Your task to perform on an android device: turn pop-ups on in chrome Image 0: 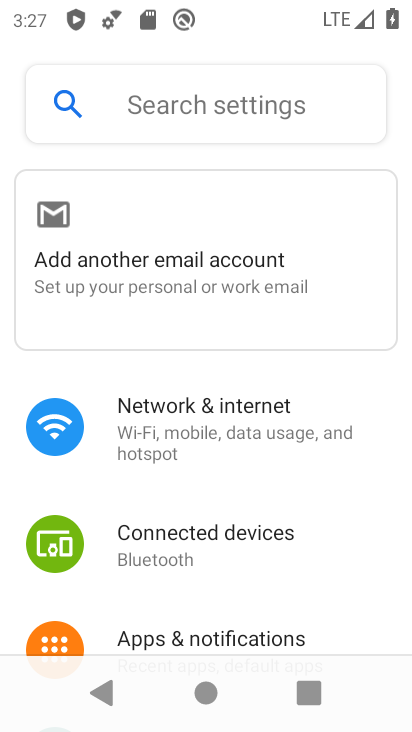
Step 0: press back button
Your task to perform on an android device: turn pop-ups on in chrome Image 1: 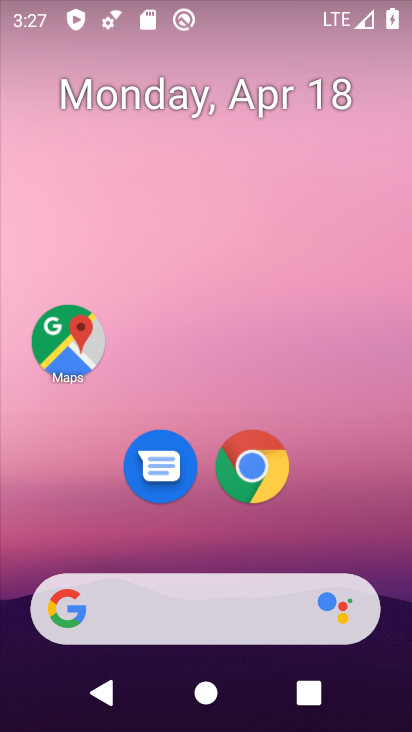
Step 1: click (276, 476)
Your task to perform on an android device: turn pop-ups on in chrome Image 2: 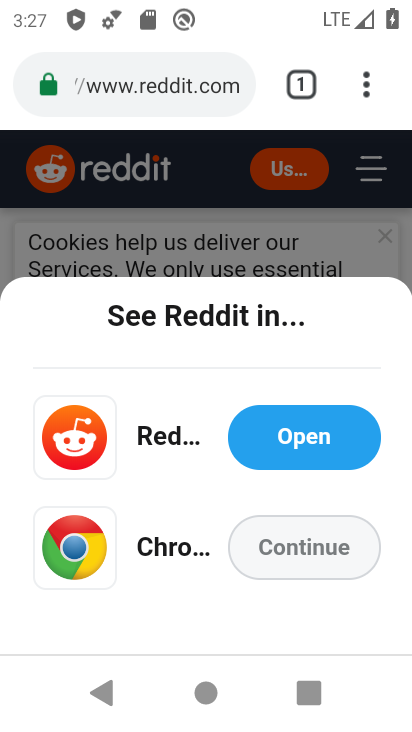
Step 2: press back button
Your task to perform on an android device: turn pop-ups on in chrome Image 3: 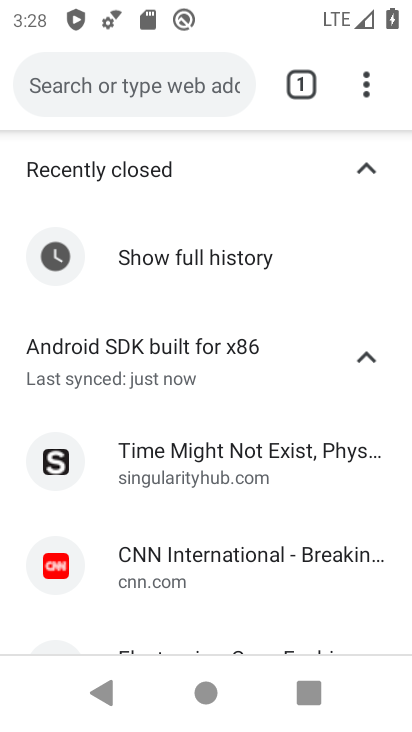
Step 3: click (369, 94)
Your task to perform on an android device: turn pop-ups on in chrome Image 4: 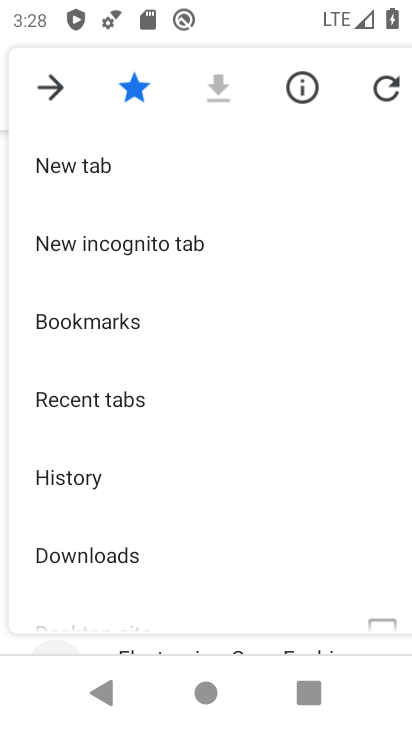
Step 4: drag from (176, 553) to (213, 175)
Your task to perform on an android device: turn pop-ups on in chrome Image 5: 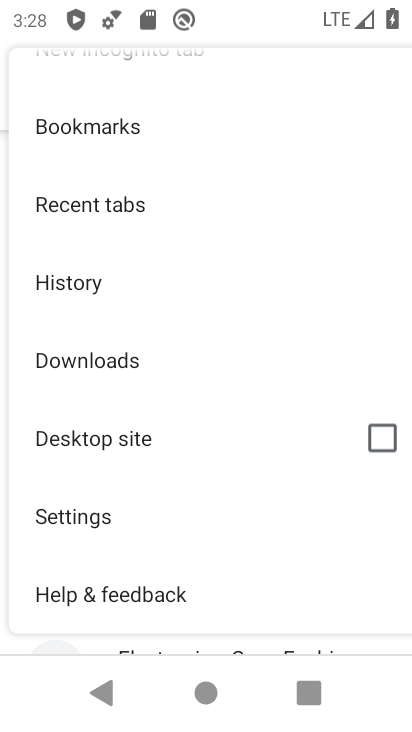
Step 5: click (130, 504)
Your task to perform on an android device: turn pop-ups on in chrome Image 6: 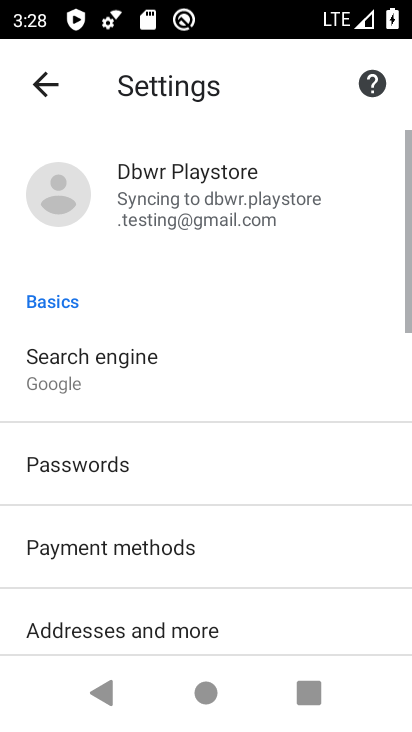
Step 6: drag from (171, 498) to (224, 136)
Your task to perform on an android device: turn pop-ups on in chrome Image 7: 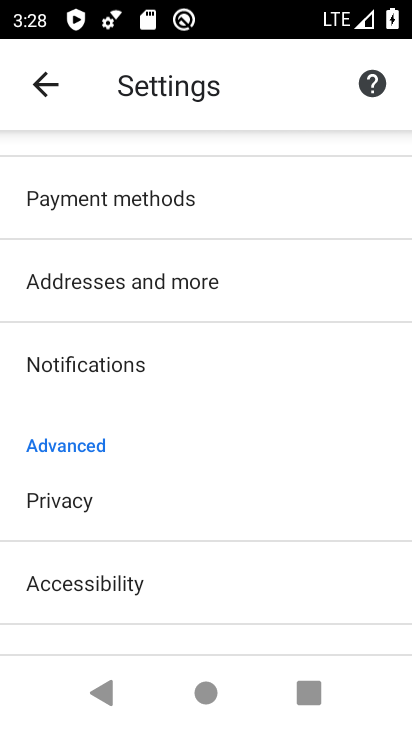
Step 7: drag from (188, 527) to (258, 147)
Your task to perform on an android device: turn pop-ups on in chrome Image 8: 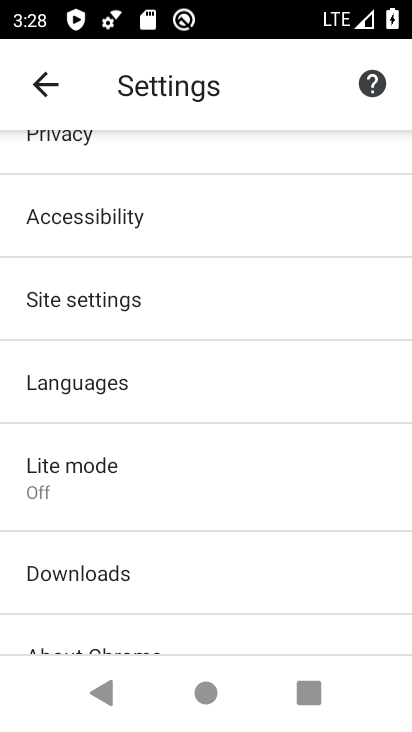
Step 8: click (257, 318)
Your task to perform on an android device: turn pop-ups on in chrome Image 9: 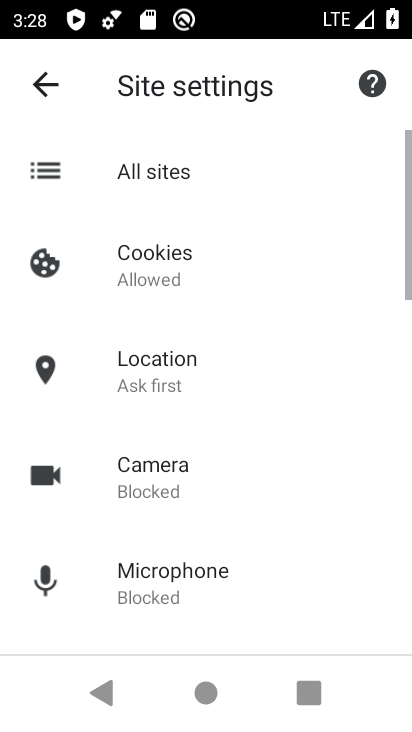
Step 9: drag from (203, 559) to (261, 210)
Your task to perform on an android device: turn pop-ups on in chrome Image 10: 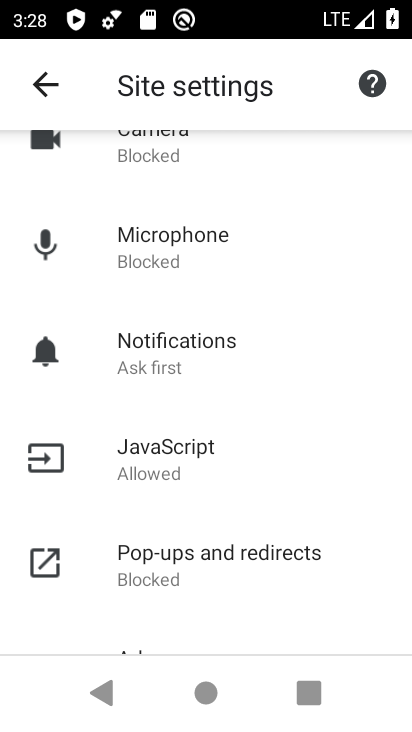
Step 10: drag from (216, 519) to (260, 339)
Your task to perform on an android device: turn pop-ups on in chrome Image 11: 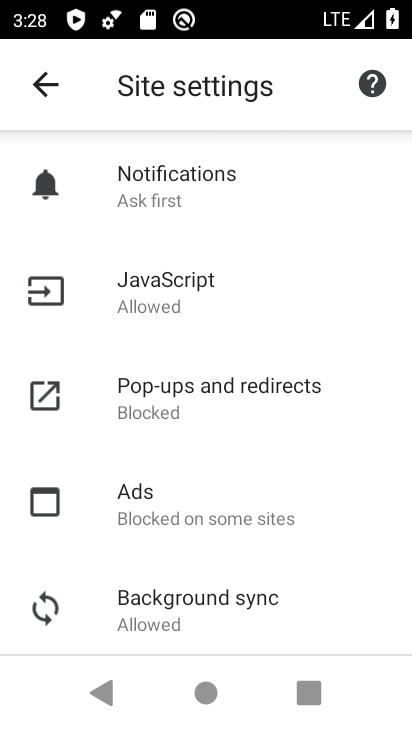
Step 11: click (251, 421)
Your task to perform on an android device: turn pop-ups on in chrome Image 12: 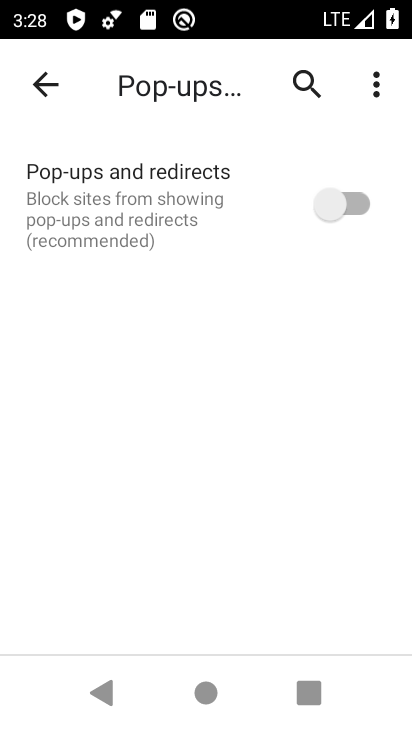
Step 12: click (339, 213)
Your task to perform on an android device: turn pop-ups on in chrome Image 13: 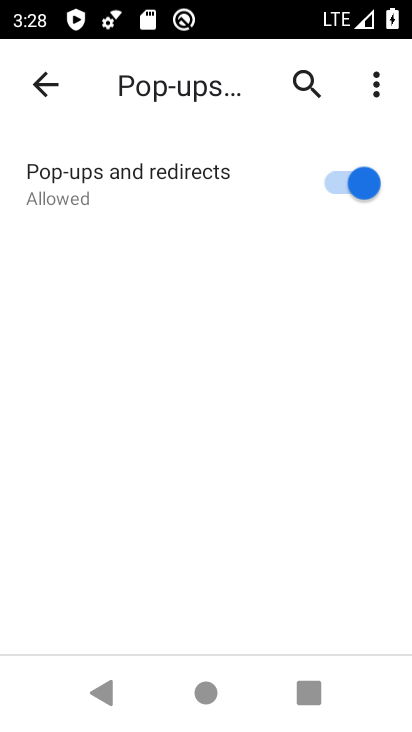
Step 13: task complete